Your task to perform on an android device: turn off javascript in the chrome app Image 0: 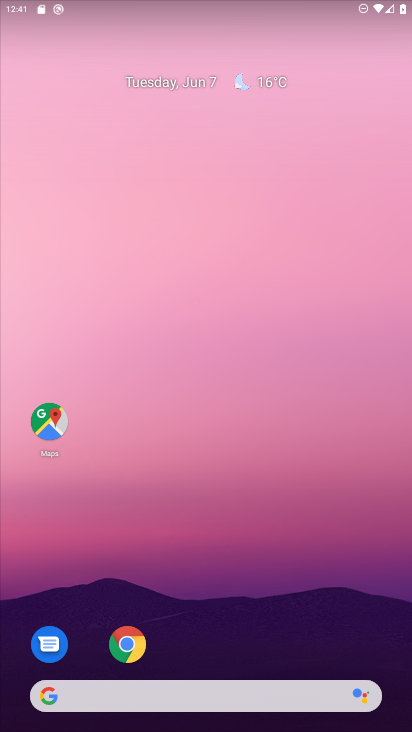
Step 0: drag from (252, 554) to (187, 187)
Your task to perform on an android device: turn off javascript in the chrome app Image 1: 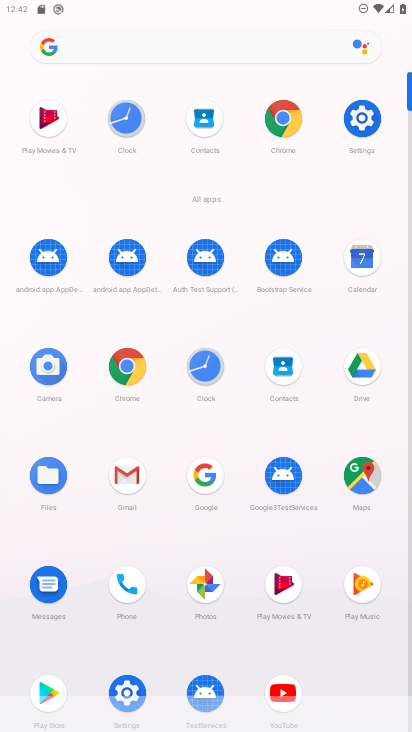
Step 1: click (282, 122)
Your task to perform on an android device: turn off javascript in the chrome app Image 2: 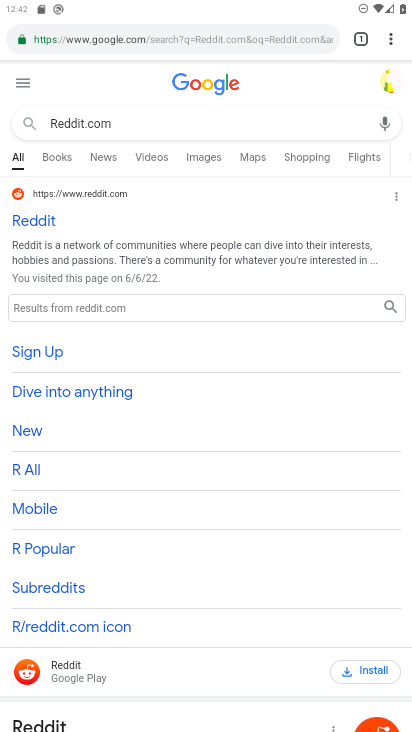
Step 2: click (399, 39)
Your task to perform on an android device: turn off javascript in the chrome app Image 3: 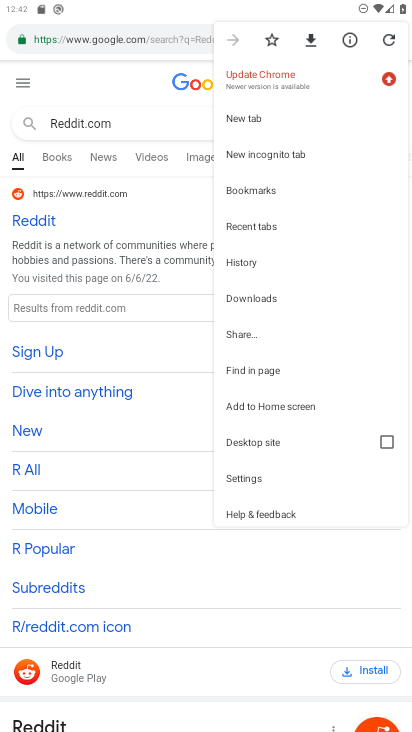
Step 3: click (254, 481)
Your task to perform on an android device: turn off javascript in the chrome app Image 4: 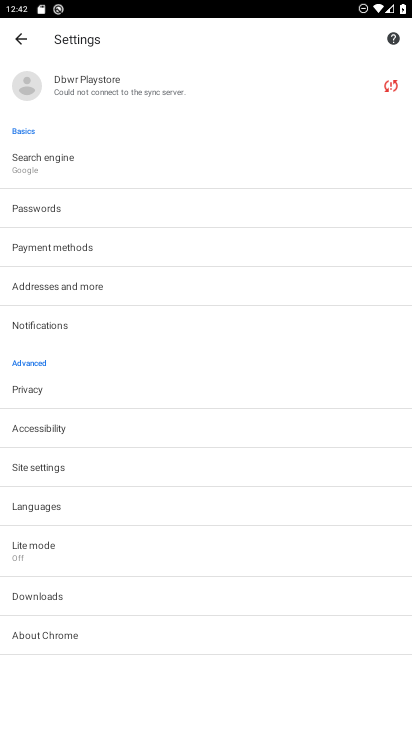
Step 4: click (60, 466)
Your task to perform on an android device: turn off javascript in the chrome app Image 5: 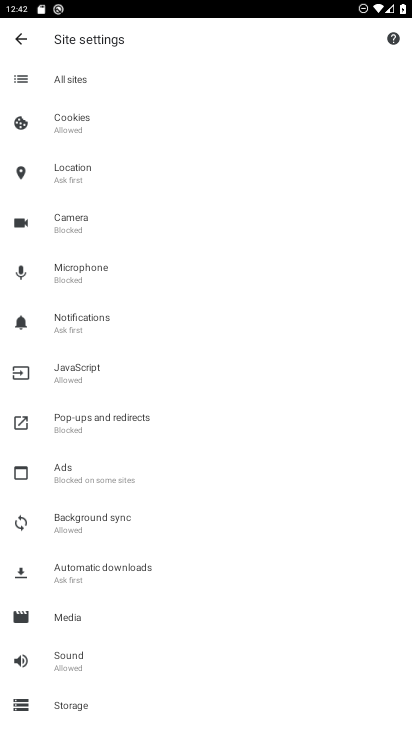
Step 5: click (90, 373)
Your task to perform on an android device: turn off javascript in the chrome app Image 6: 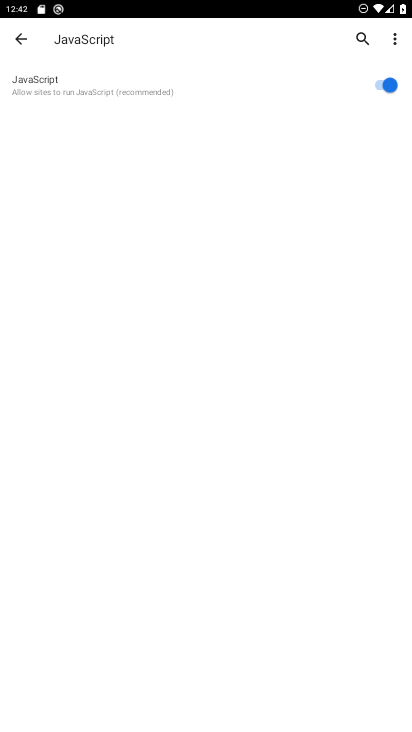
Step 6: click (380, 87)
Your task to perform on an android device: turn off javascript in the chrome app Image 7: 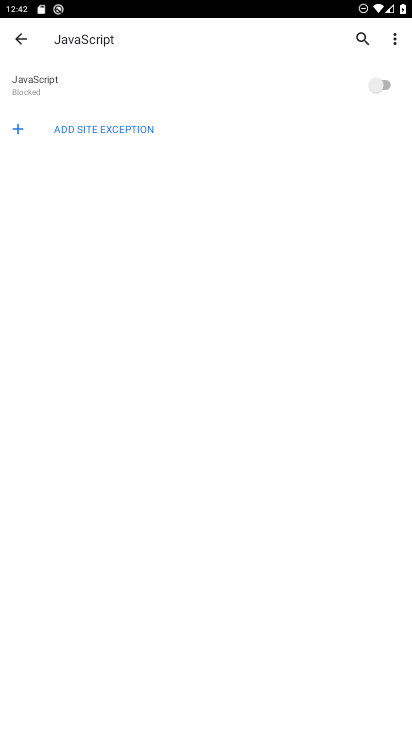
Step 7: task complete